Your task to perform on an android device: Check the weather Image 0: 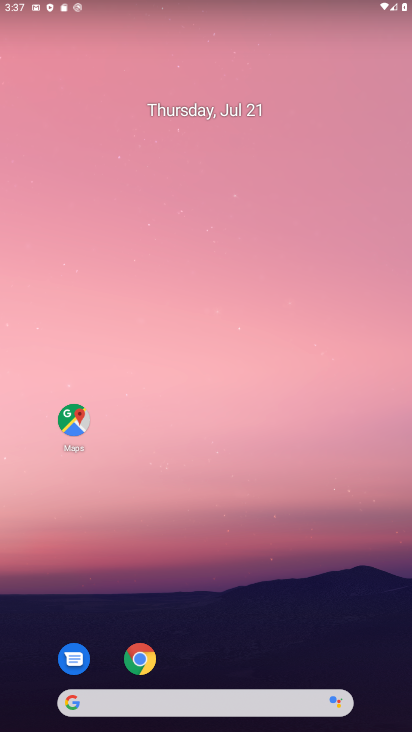
Step 0: drag from (216, 683) to (291, 140)
Your task to perform on an android device: Check the weather Image 1: 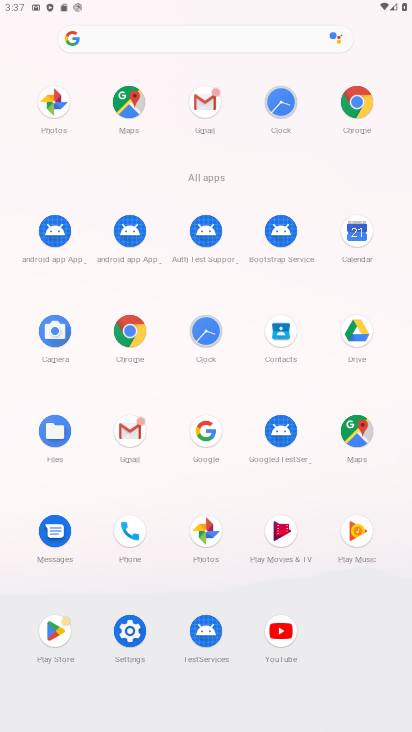
Step 1: click (203, 428)
Your task to perform on an android device: Check the weather Image 2: 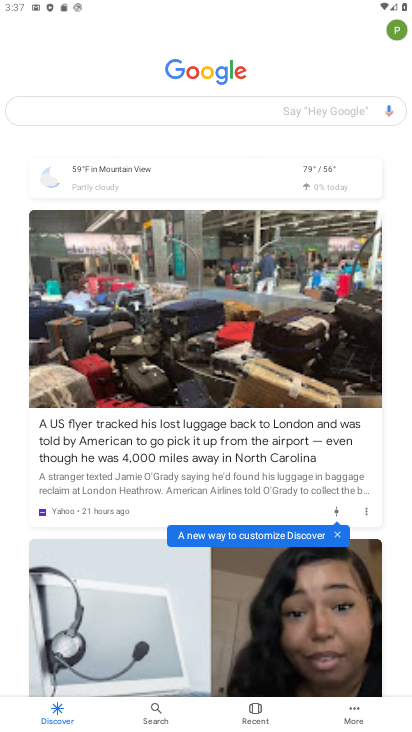
Step 2: click (331, 185)
Your task to perform on an android device: Check the weather Image 3: 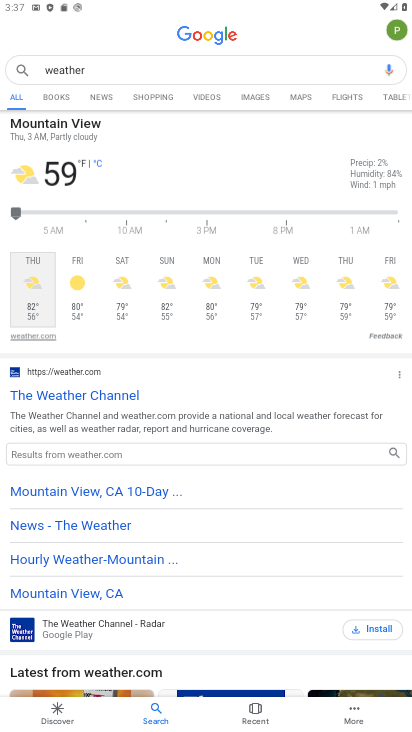
Step 3: task complete